Your task to perform on an android device: What's the weather going to be tomorrow? Image 0: 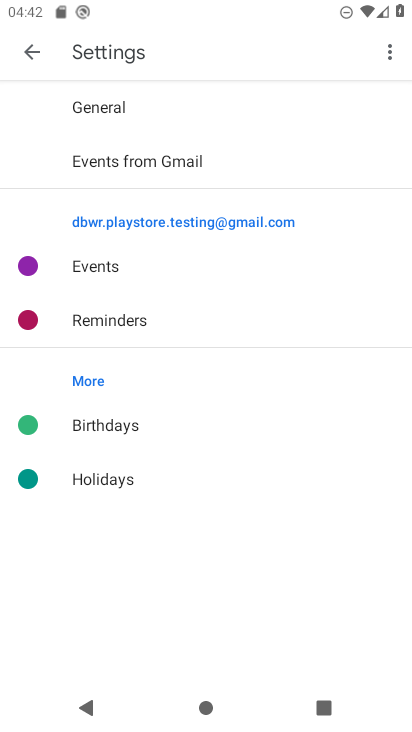
Step 0: press home button
Your task to perform on an android device: What's the weather going to be tomorrow? Image 1: 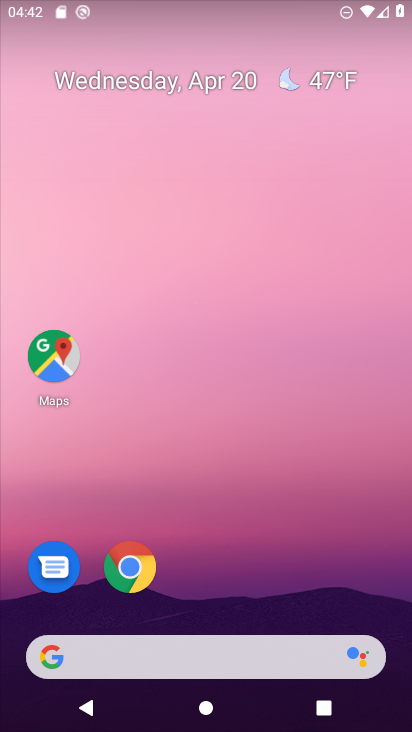
Step 1: click (234, 657)
Your task to perform on an android device: What's the weather going to be tomorrow? Image 2: 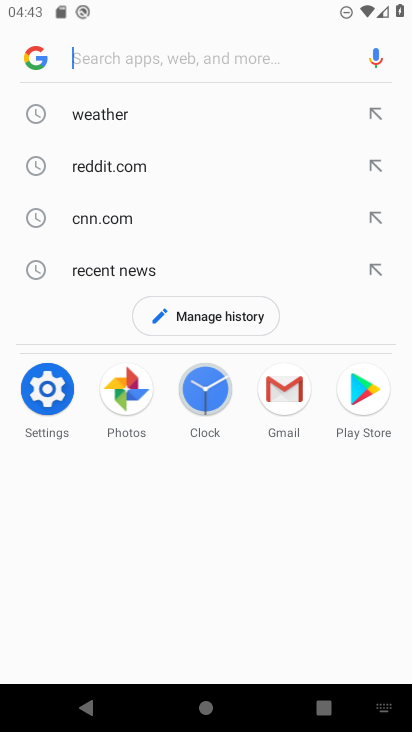
Step 2: click (198, 96)
Your task to perform on an android device: What's the weather going to be tomorrow? Image 3: 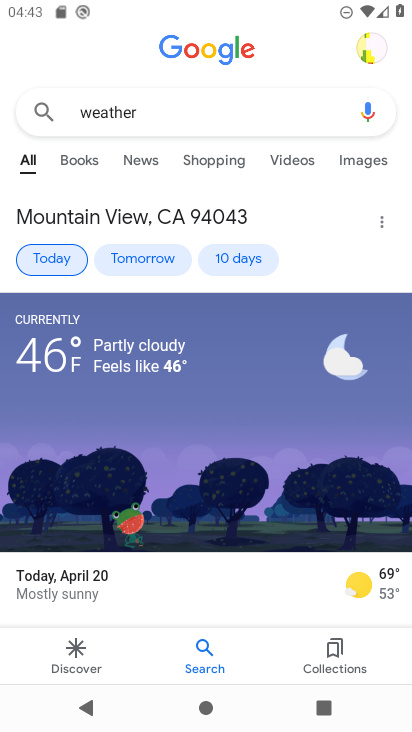
Step 3: click (128, 268)
Your task to perform on an android device: What's the weather going to be tomorrow? Image 4: 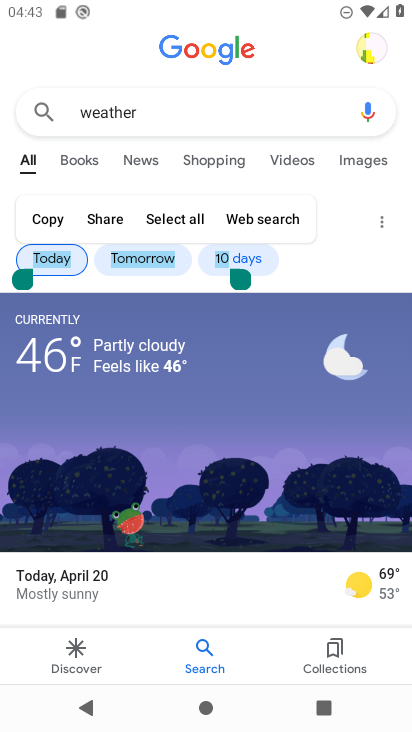
Step 4: click (177, 254)
Your task to perform on an android device: What's the weather going to be tomorrow? Image 5: 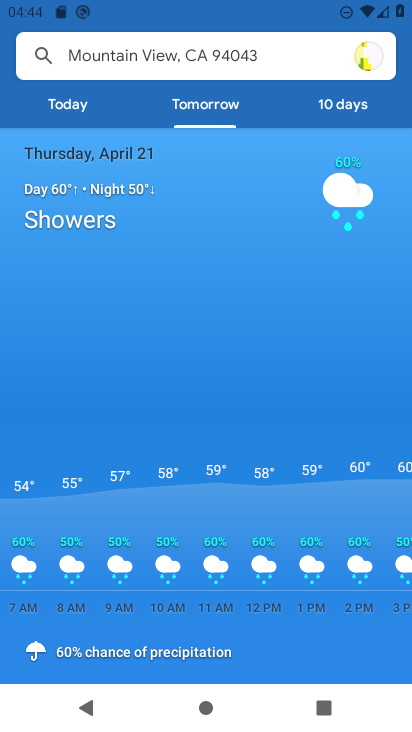
Step 5: task complete